Your task to perform on an android device: turn off sleep mode Image 0: 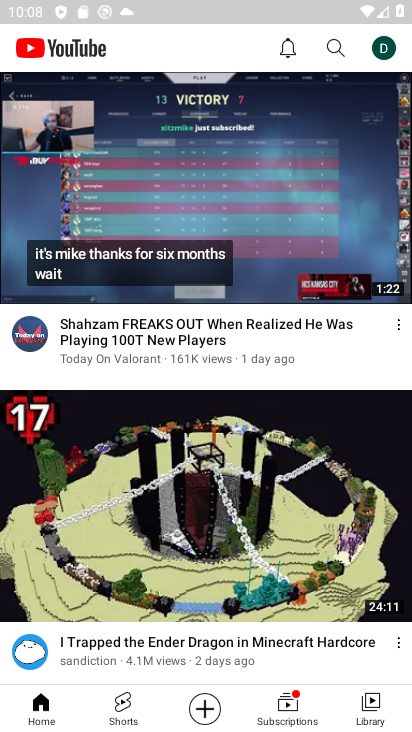
Step 0: press home button
Your task to perform on an android device: turn off sleep mode Image 1: 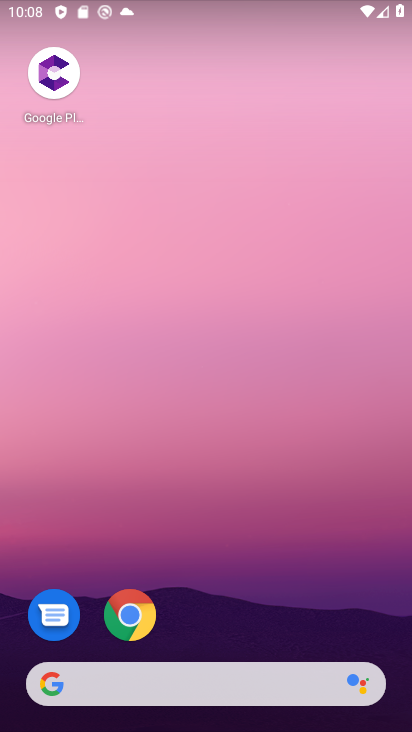
Step 1: drag from (315, 559) to (269, 95)
Your task to perform on an android device: turn off sleep mode Image 2: 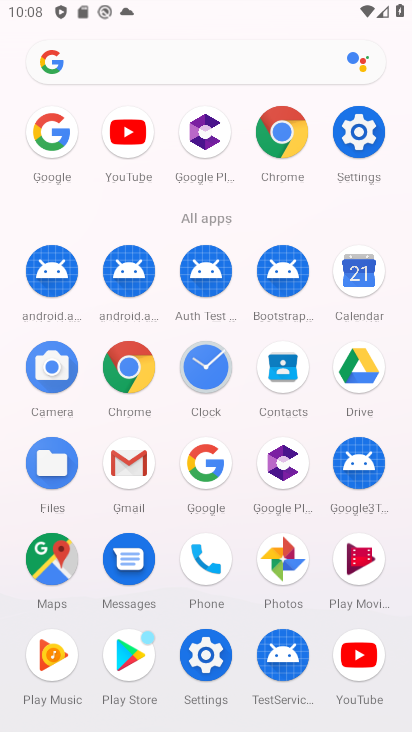
Step 2: drag from (242, 532) to (230, 208)
Your task to perform on an android device: turn off sleep mode Image 3: 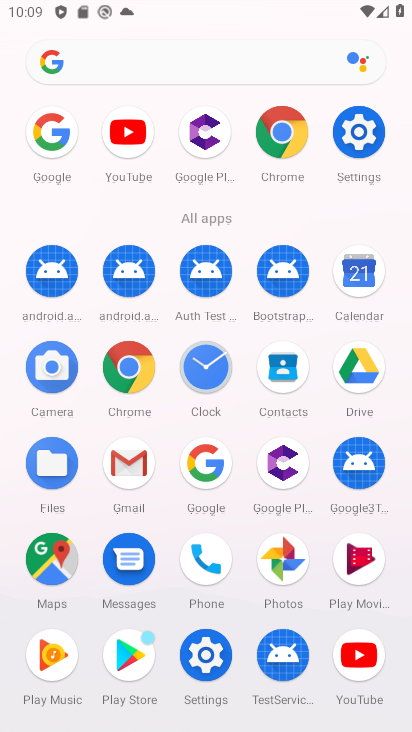
Step 3: drag from (246, 578) to (250, 14)
Your task to perform on an android device: turn off sleep mode Image 4: 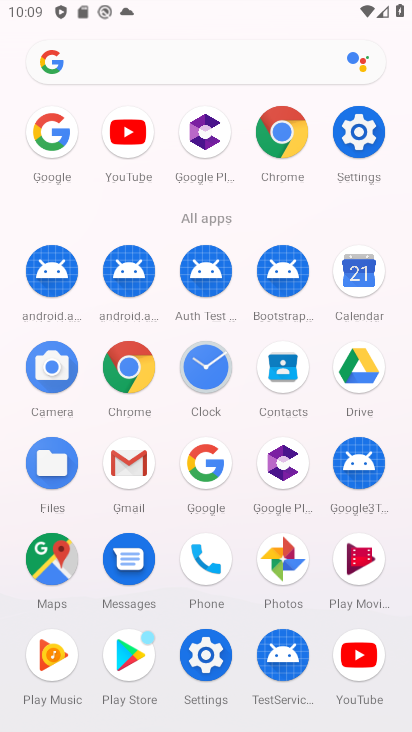
Step 4: drag from (370, 5) to (301, 512)
Your task to perform on an android device: turn off sleep mode Image 5: 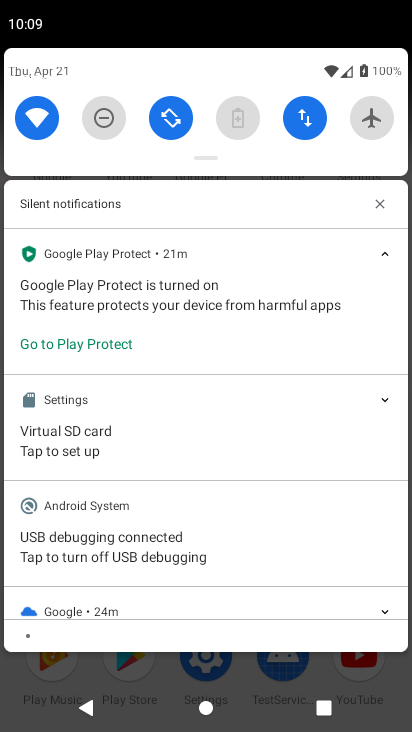
Step 5: drag from (176, 536) to (170, 659)
Your task to perform on an android device: turn off sleep mode Image 6: 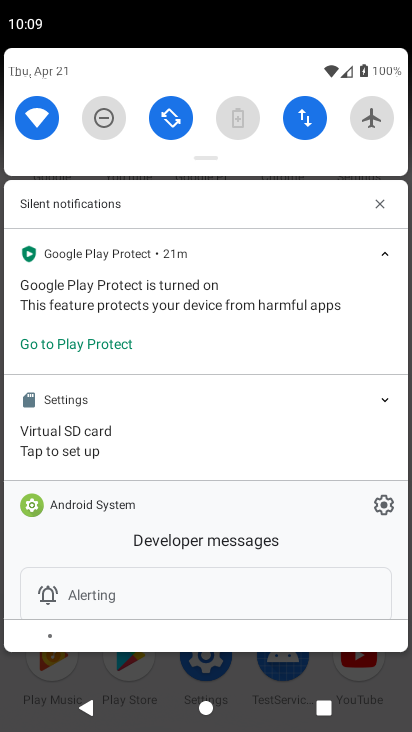
Step 6: drag from (203, 147) to (187, 484)
Your task to perform on an android device: turn off sleep mode Image 7: 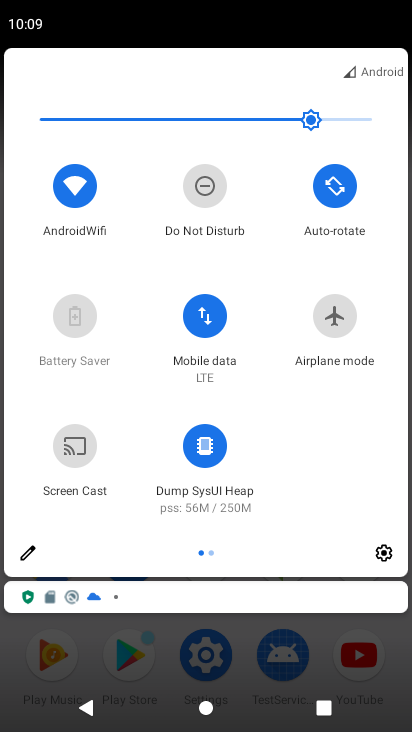
Step 7: click (30, 544)
Your task to perform on an android device: turn off sleep mode Image 8: 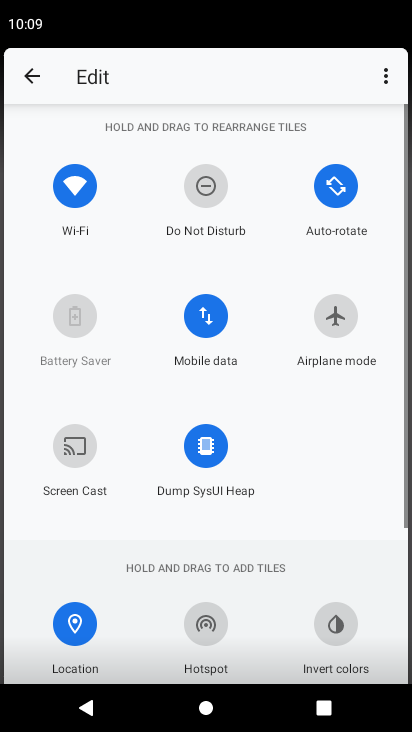
Step 8: task complete